Your task to perform on an android device: Open Google Maps and go to "Timeline" Image 0: 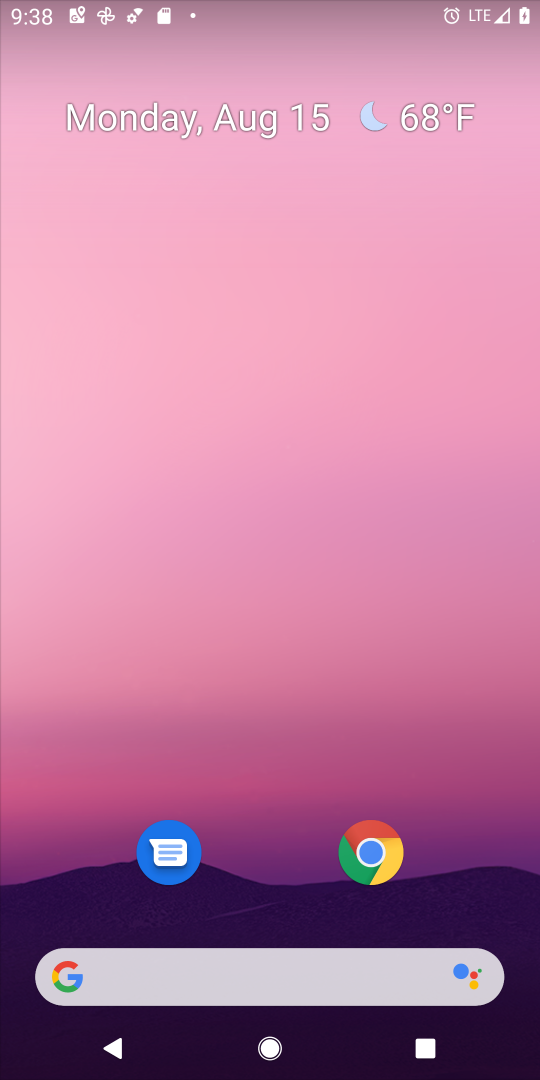
Step 0: drag from (219, 979) to (276, 132)
Your task to perform on an android device: Open Google Maps and go to "Timeline" Image 1: 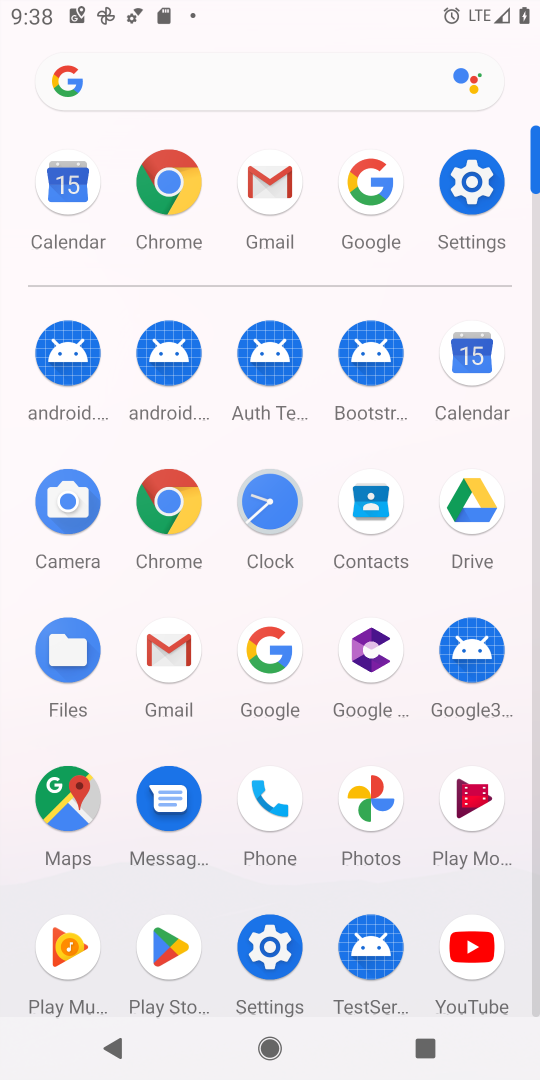
Step 1: click (67, 801)
Your task to perform on an android device: Open Google Maps and go to "Timeline" Image 2: 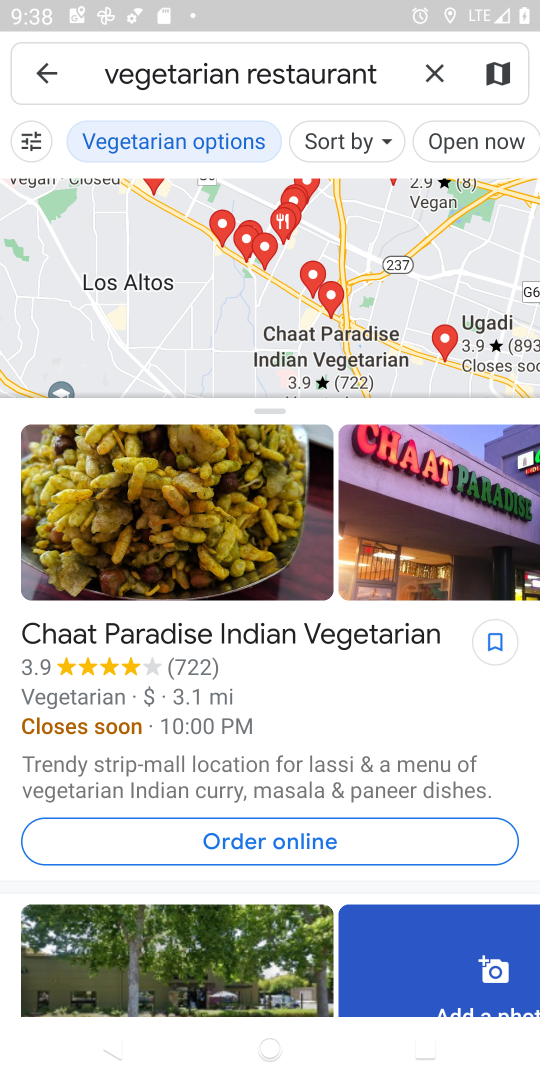
Step 2: click (429, 75)
Your task to perform on an android device: Open Google Maps and go to "Timeline" Image 3: 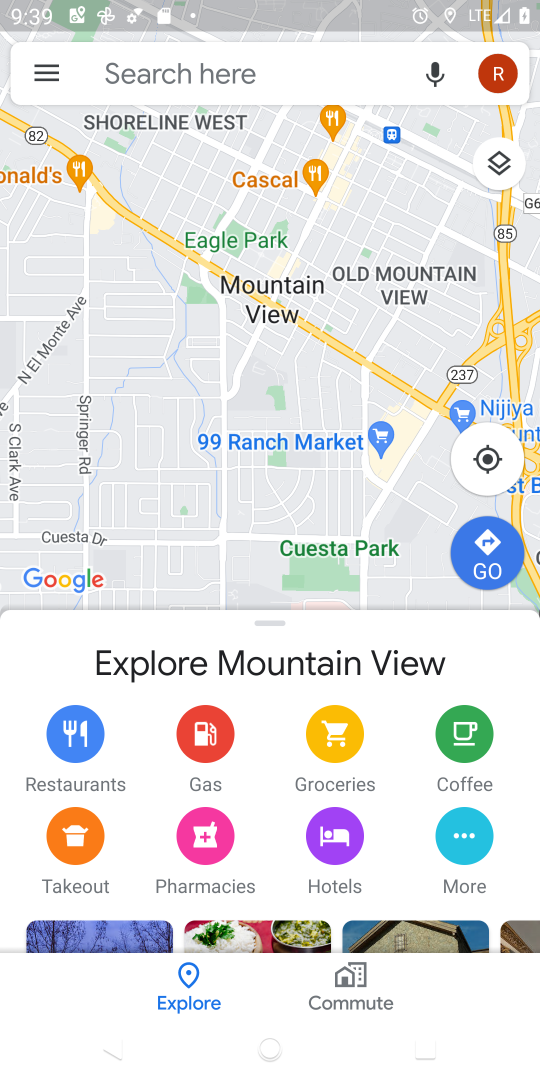
Step 3: click (44, 82)
Your task to perform on an android device: Open Google Maps and go to "Timeline" Image 4: 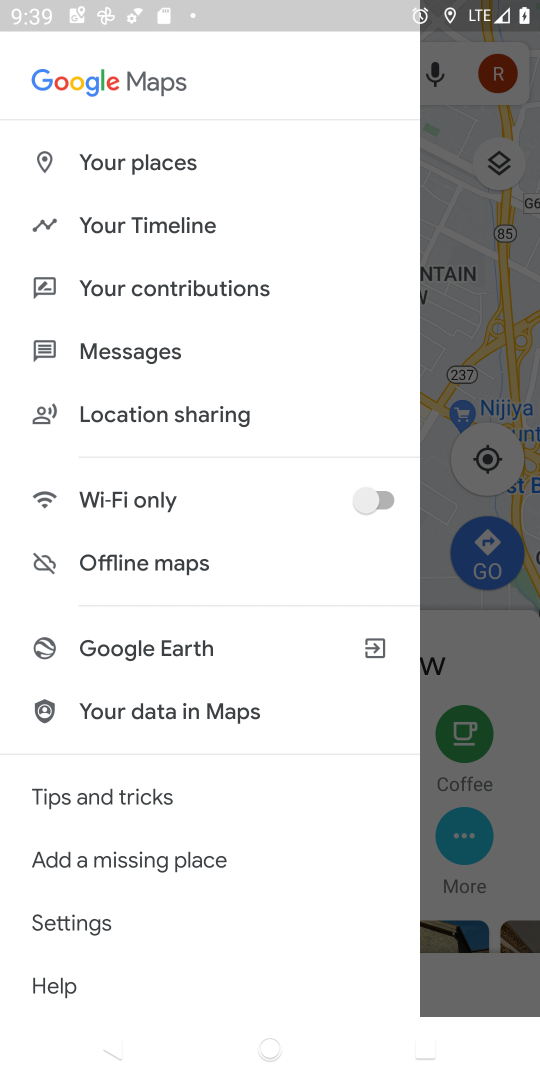
Step 4: click (159, 220)
Your task to perform on an android device: Open Google Maps and go to "Timeline" Image 5: 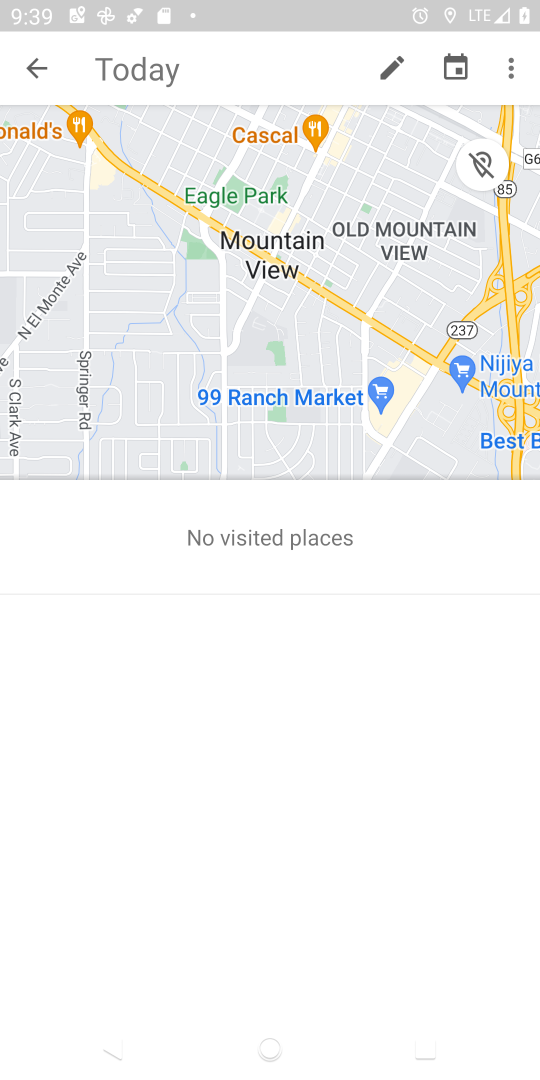
Step 5: task complete